Your task to perform on an android device: Set the phone to "Do not disturb". Image 0: 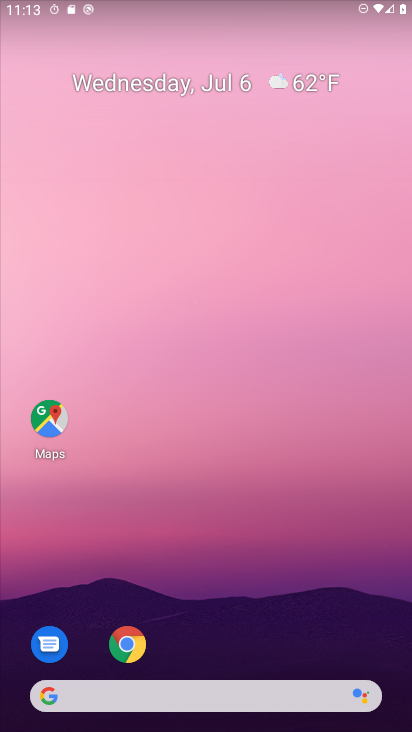
Step 0: press home button
Your task to perform on an android device: Set the phone to "Do not disturb". Image 1: 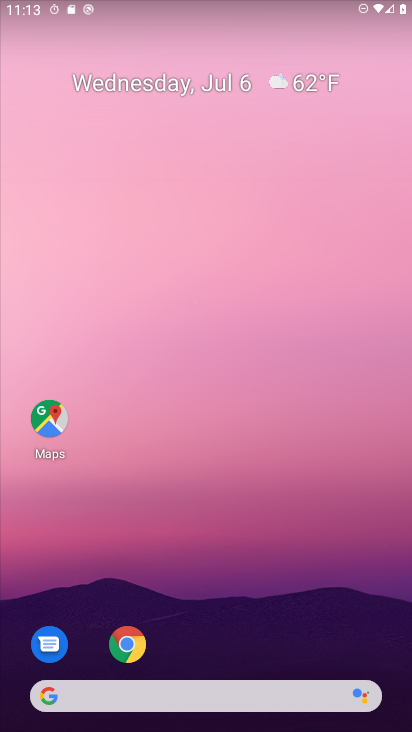
Step 1: task complete